Your task to perform on an android device: turn on priority inbox in the gmail app Image 0: 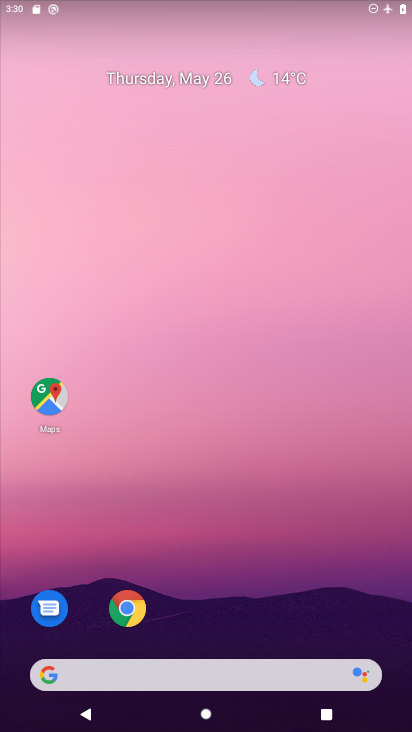
Step 0: drag from (292, 607) to (325, 123)
Your task to perform on an android device: turn on priority inbox in the gmail app Image 1: 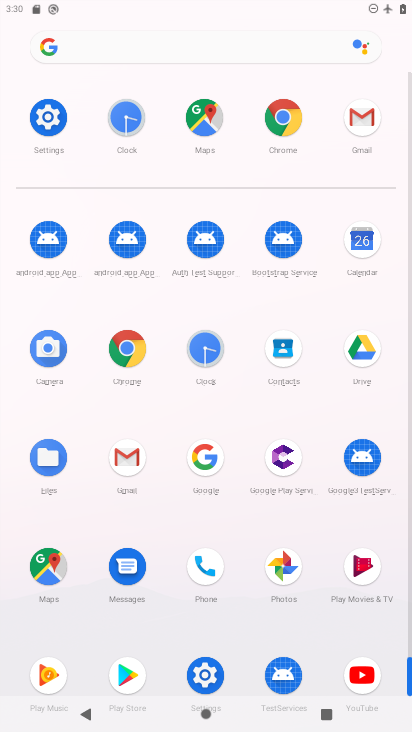
Step 1: click (361, 124)
Your task to perform on an android device: turn on priority inbox in the gmail app Image 2: 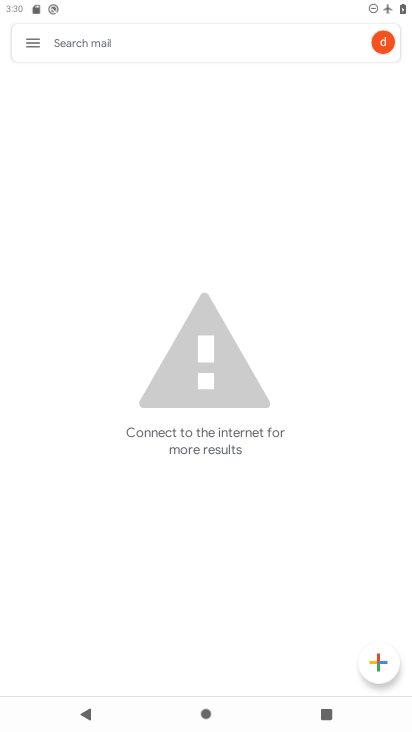
Step 2: click (29, 42)
Your task to perform on an android device: turn on priority inbox in the gmail app Image 3: 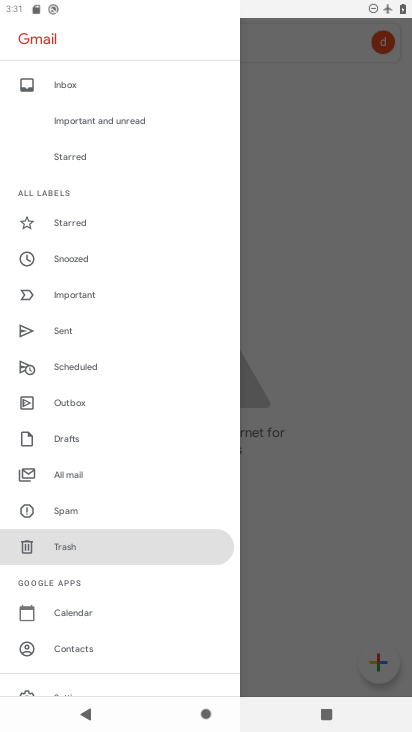
Step 3: drag from (83, 598) to (124, 156)
Your task to perform on an android device: turn on priority inbox in the gmail app Image 4: 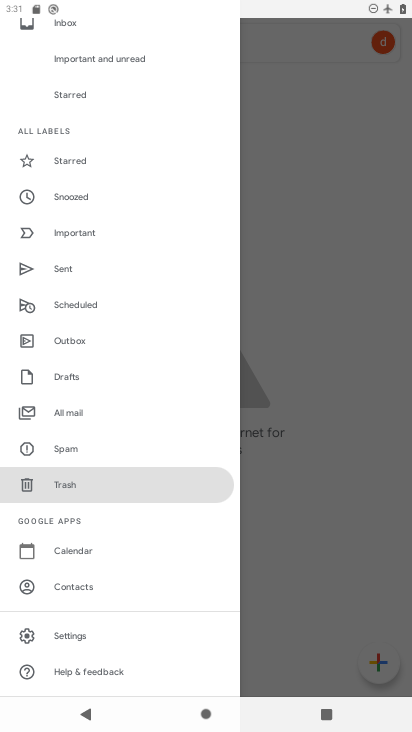
Step 4: click (73, 632)
Your task to perform on an android device: turn on priority inbox in the gmail app Image 5: 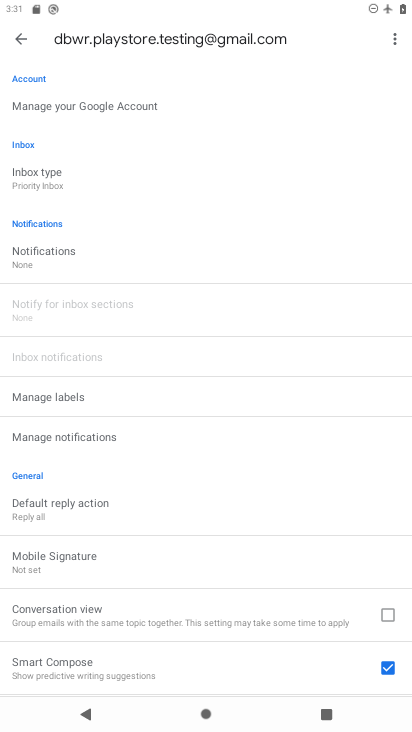
Step 5: task complete